Your task to perform on an android device: Check the weather Image 0: 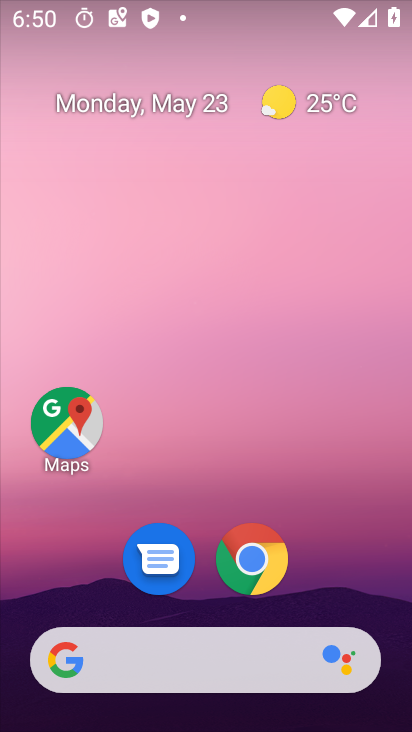
Step 0: drag from (397, 663) to (254, 67)
Your task to perform on an android device: Check the weather Image 1: 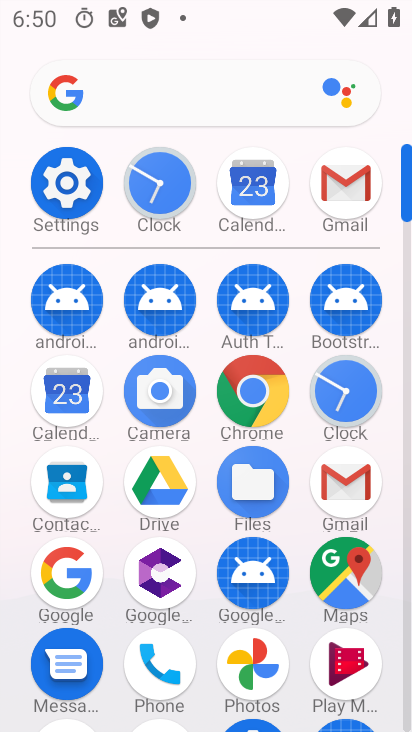
Step 1: click (68, 581)
Your task to perform on an android device: Check the weather Image 2: 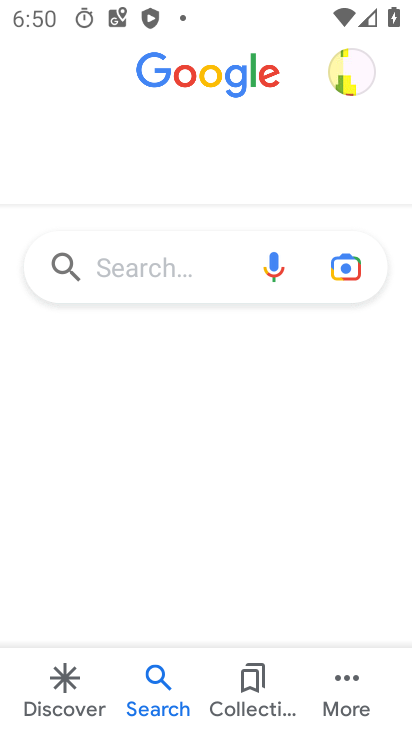
Step 2: click (149, 262)
Your task to perform on an android device: Check the weather Image 3: 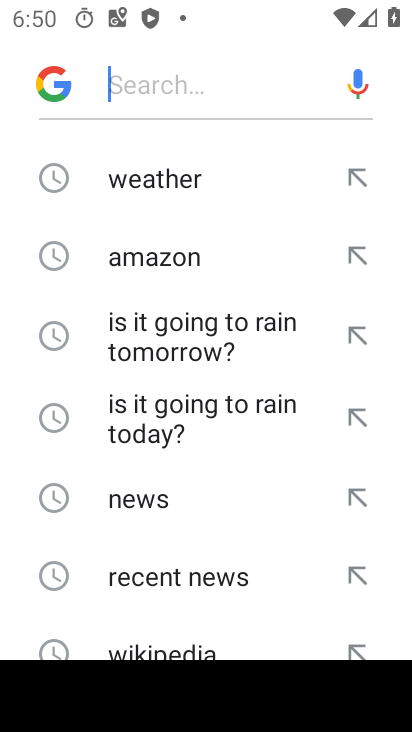
Step 3: click (145, 168)
Your task to perform on an android device: Check the weather Image 4: 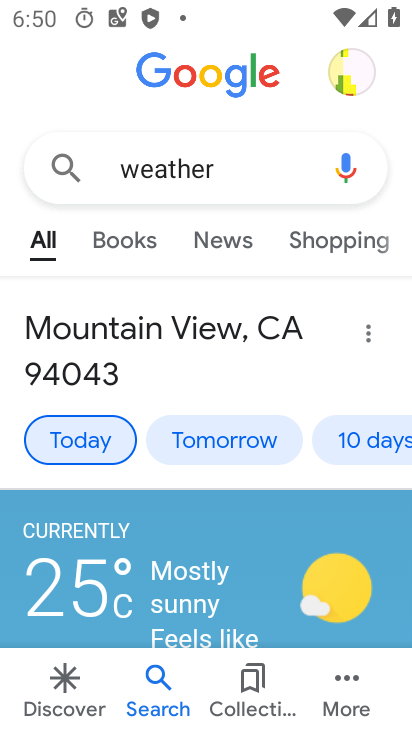
Step 4: task complete